Your task to perform on an android device: Turn off the flashlight Image 0: 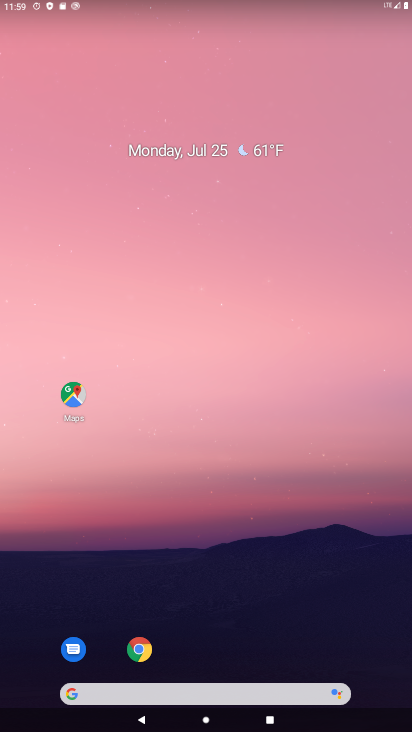
Step 0: drag from (213, 651) to (74, 181)
Your task to perform on an android device: Turn off the flashlight Image 1: 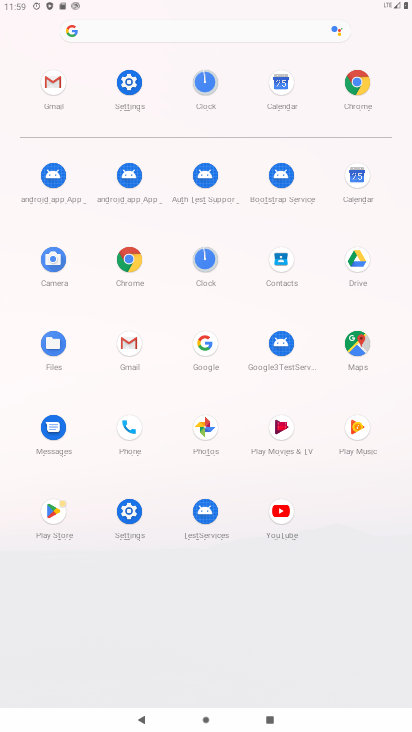
Step 1: click (125, 501)
Your task to perform on an android device: Turn off the flashlight Image 2: 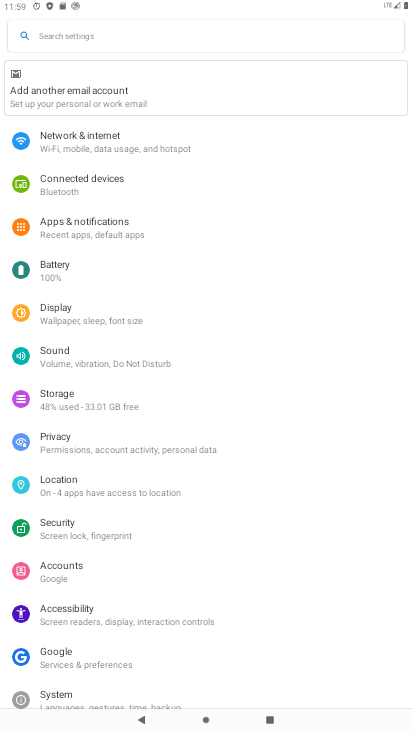
Step 2: task complete